Your task to perform on an android device: What's the top post on reddit? Image 0: 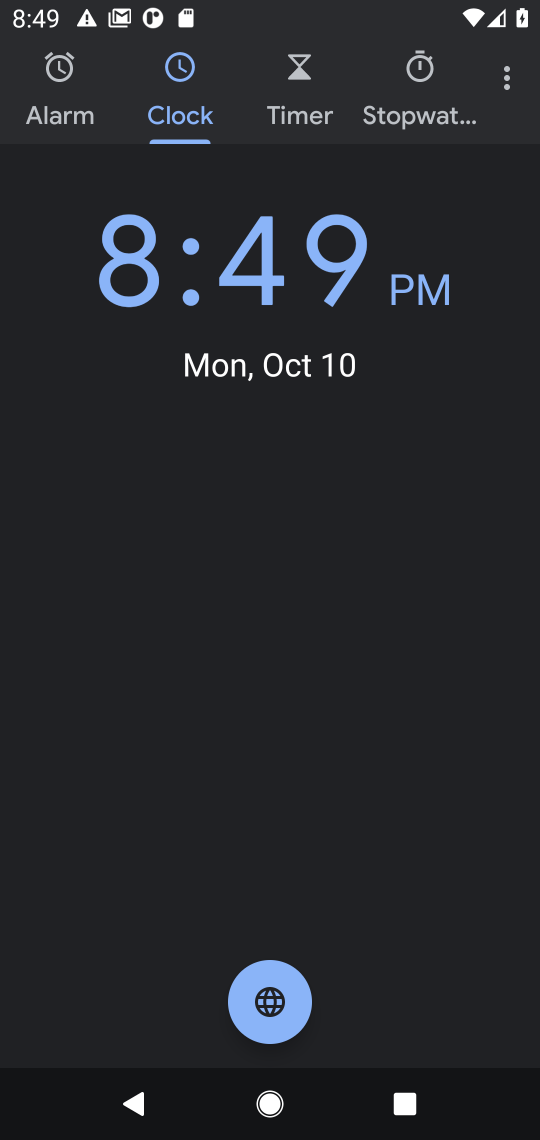
Step 0: press home button
Your task to perform on an android device: What's the top post on reddit? Image 1: 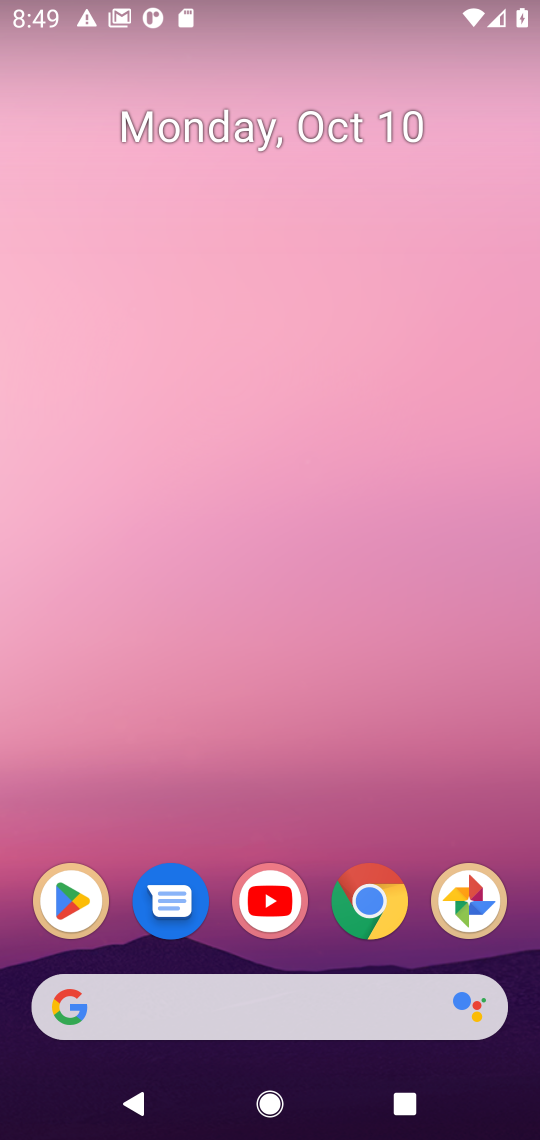
Step 1: click (274, 1012)
Your task to perform on an android device: What's the top post on reddit? Image 2: 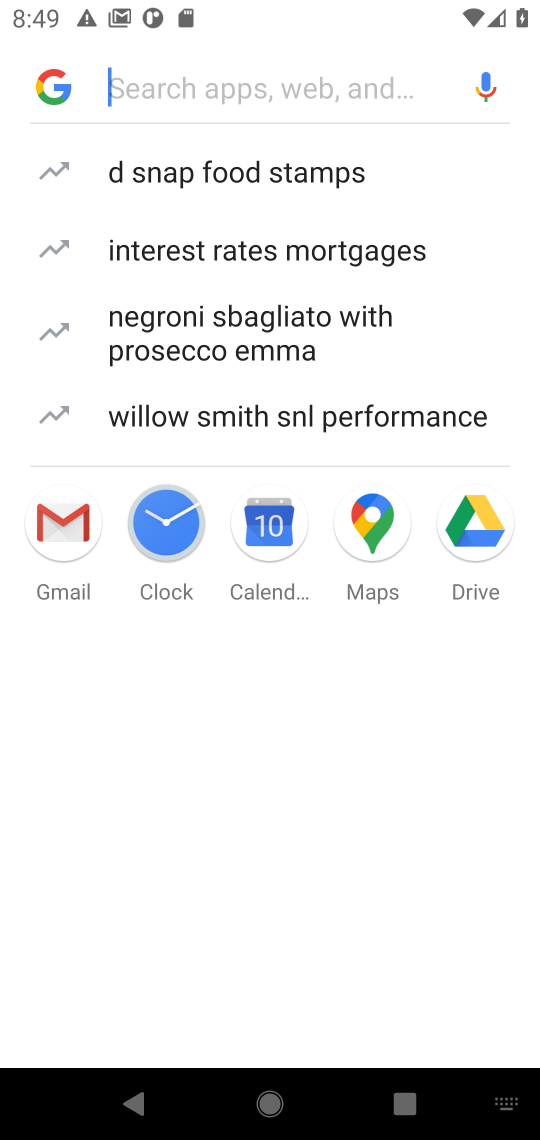
Step 2: press enter
Your task to perform on an android device: What's the top post on reddit? Image 3: 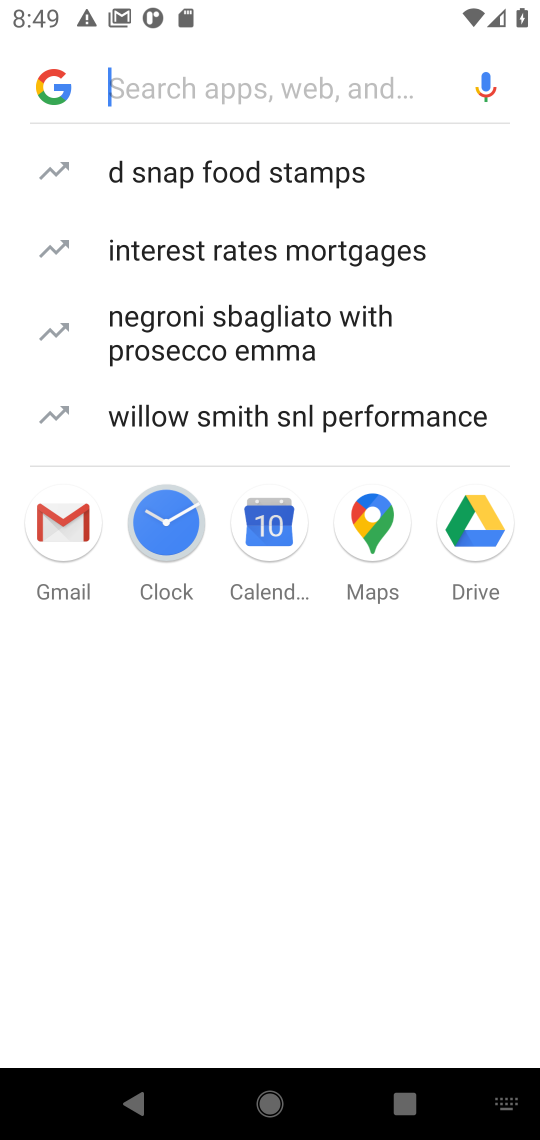
Step 3: type "What's the top post on reddit"
Your task to perform on an android device: What's the top post on reddit? Image 4: 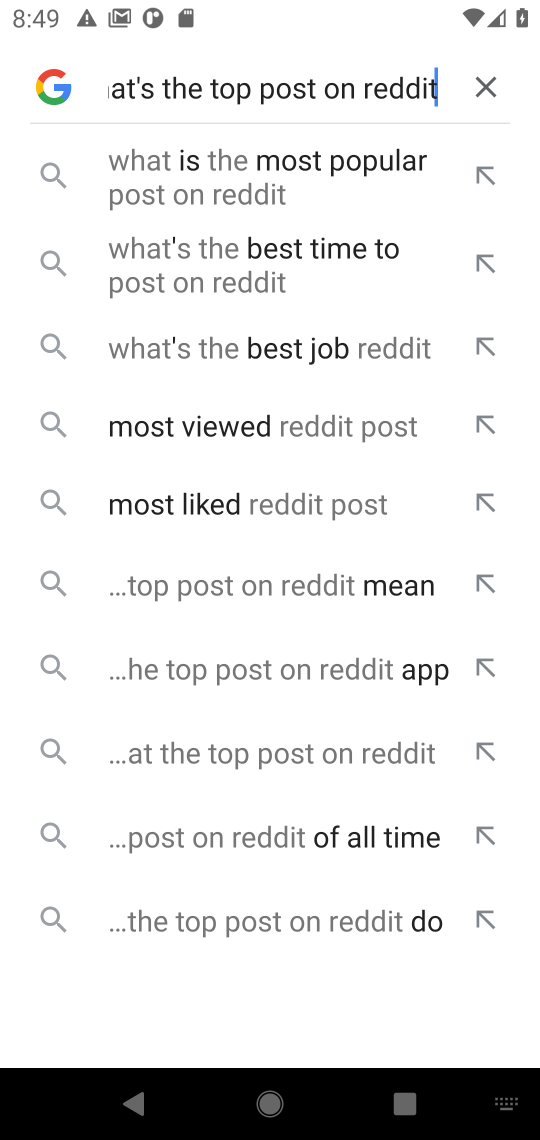
Step 4: press enter
Your task to perform on an android device: What's the top post on reddit? Image 5: 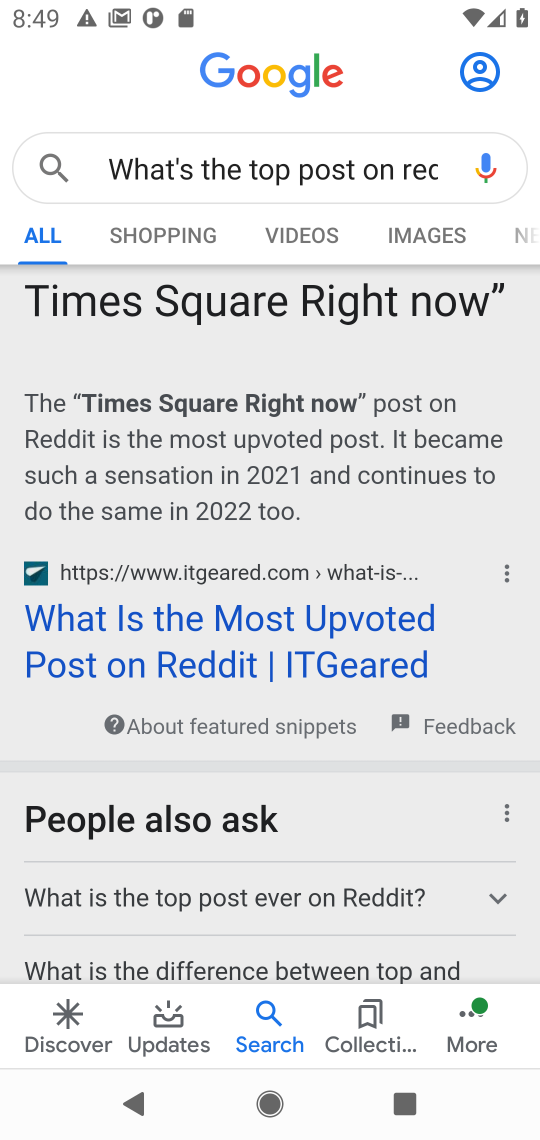
Step 5: click (279, 664)
Your task to perform on an android device: What's the top post on reddit? Image 6: 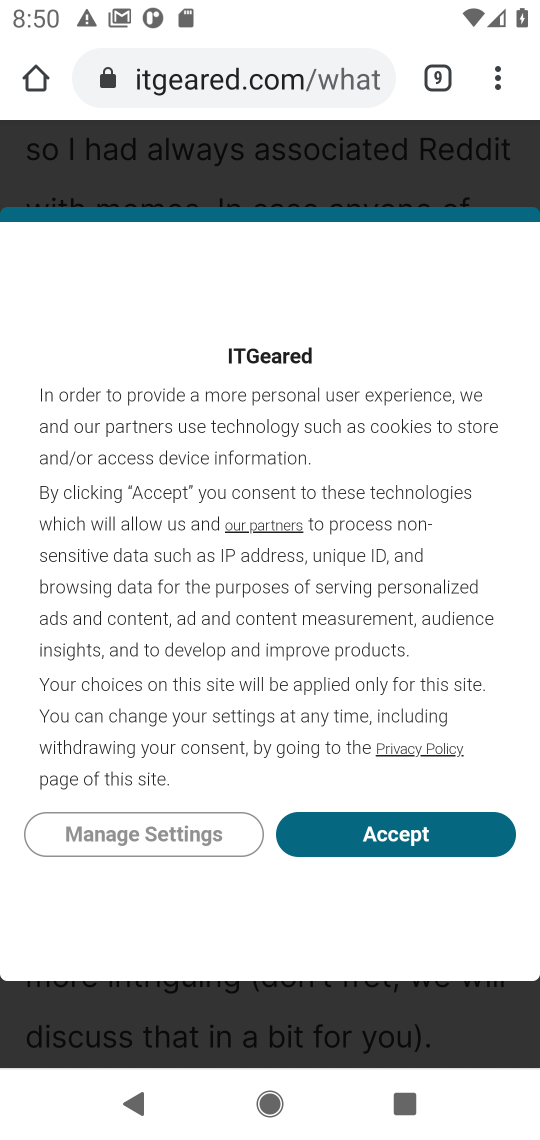
Step 6: click (411, 831)
Your task to perform on an android device: What's the top post on reddit? Image 7: 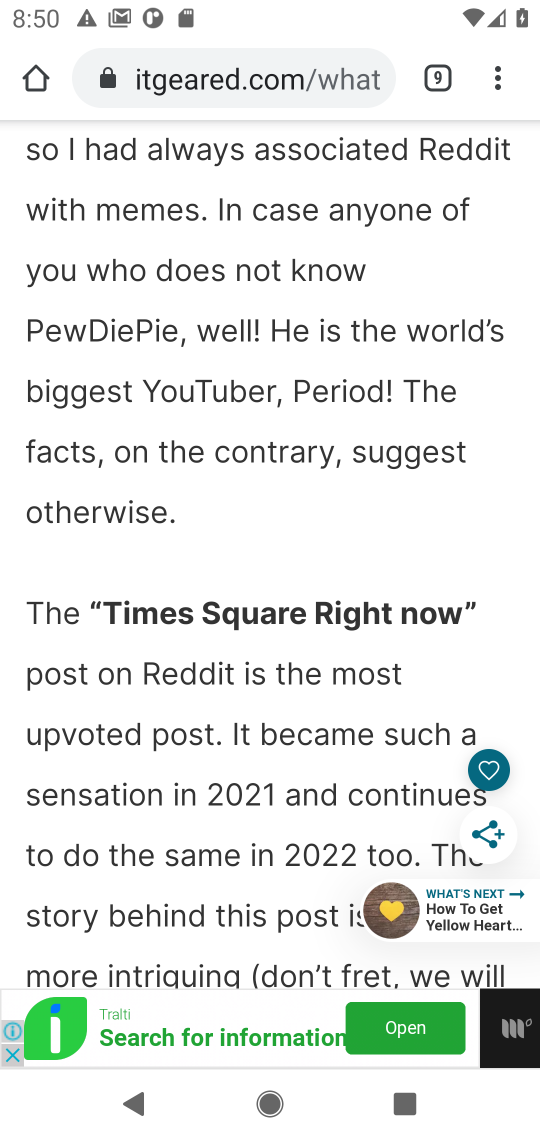
Step 7: task complete